Your task to perform on an android device: Go to Wikipedia Image 0: 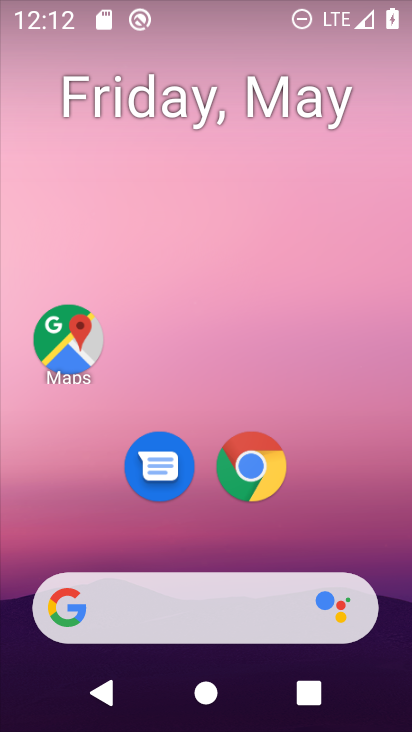
Step 0: drag from (184, 564) to (200, 35)
Your task to perform on an android device: Go to Wikipedia Image 1: 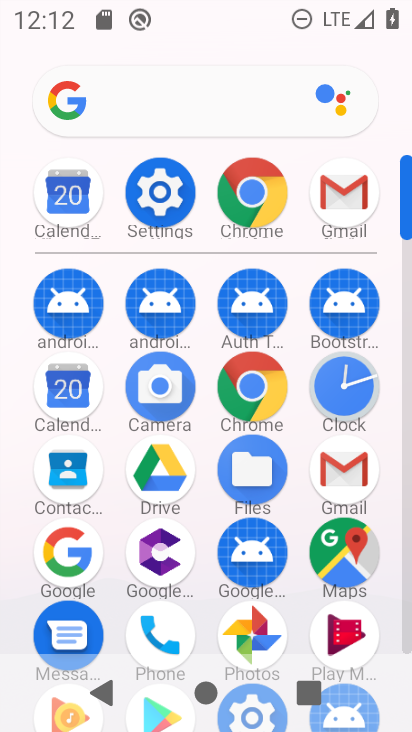
Step 1: click (252, 397)
Your task to perform on an android device: Go to Wikipedia Image 2: 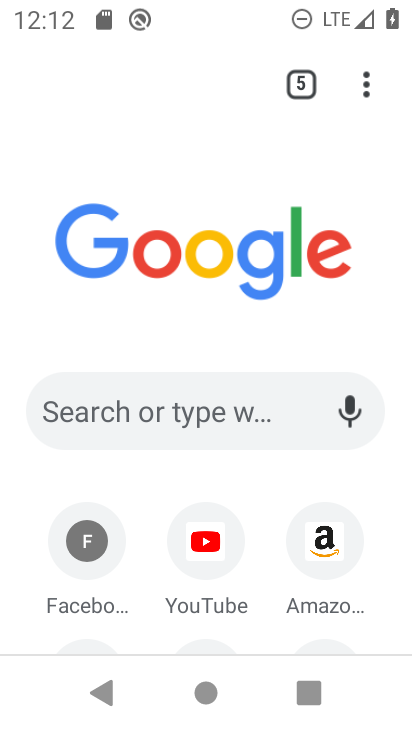
Step 2: drag from (264, 523) to (283, 78)
Your task to perform on an android device: Go to Wikipedia Image 3: 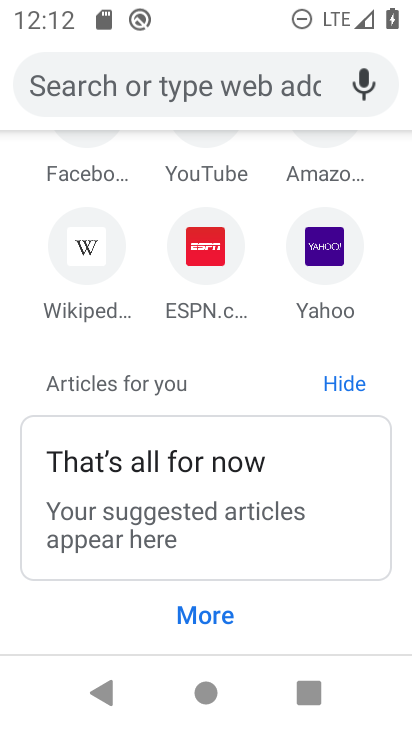
Step 3: click (95, 252)
Your task to perform on an android device: Go to Wikipedia Image 4: 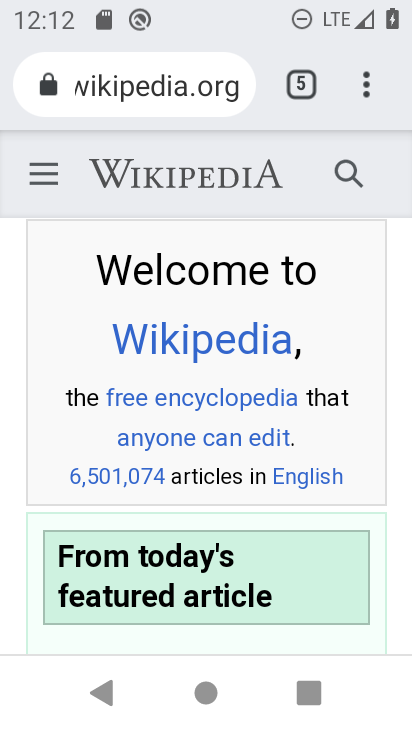
Step 4: task complete